Your task to perform on an android device: search for starred emails in the gmail app Image 0: 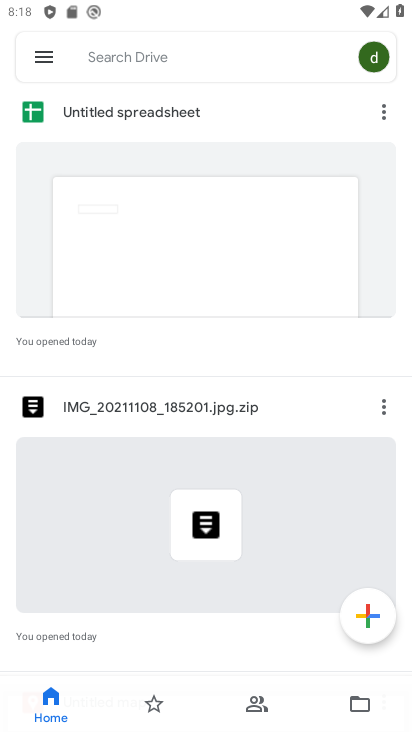
Step 0: press home button
Your task to perform on an android device: search for starred emails in the gmail app Image 1: 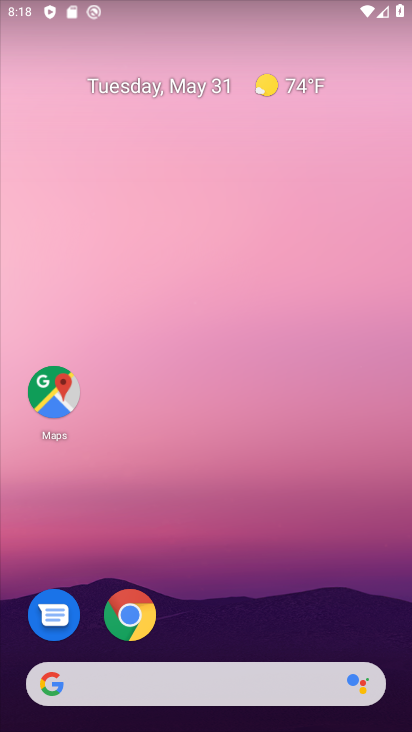
Step 1: drag from (213, 618) to (214, 149)
Your task to perform on an android device: search for starred emails in the gmail app Image 2: 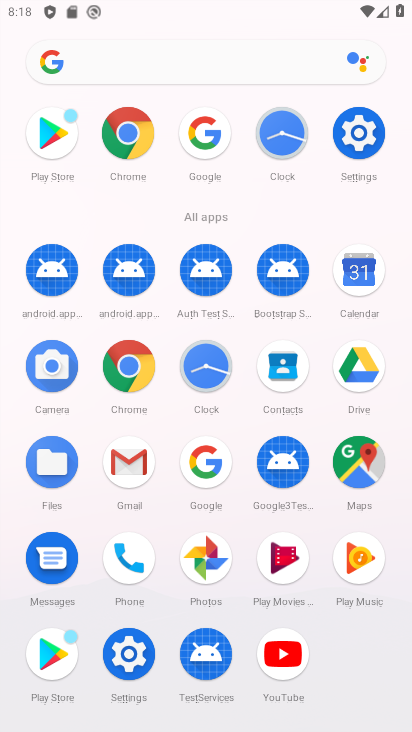
Step 2: click (137, 458)
Your task to perform on an android device: search for starred emails in the gmail app Image 3: 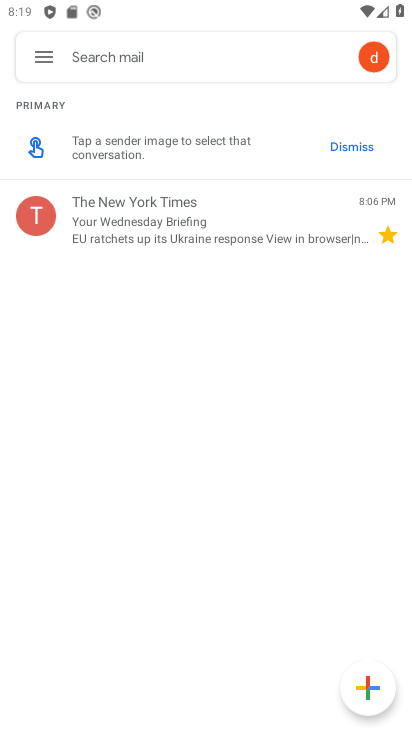
Step 3: click (47, 42)
Your task to perform on an android device: search for starred emails in the gmail app Image 4: 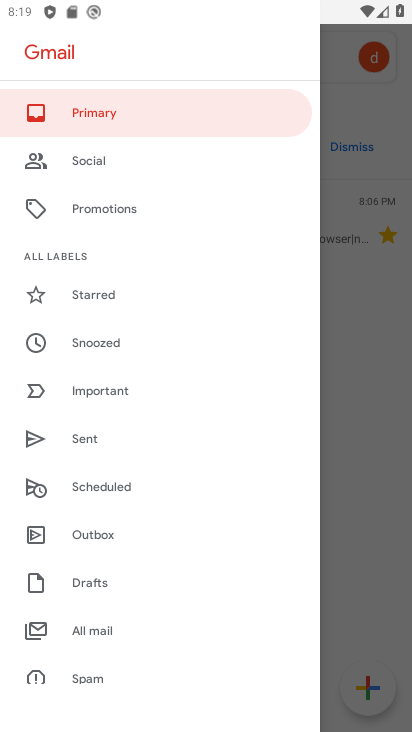
Step 4: click (118, 301)
Your task to perform on an android device: search for starred emails in the gmail app Image 5: 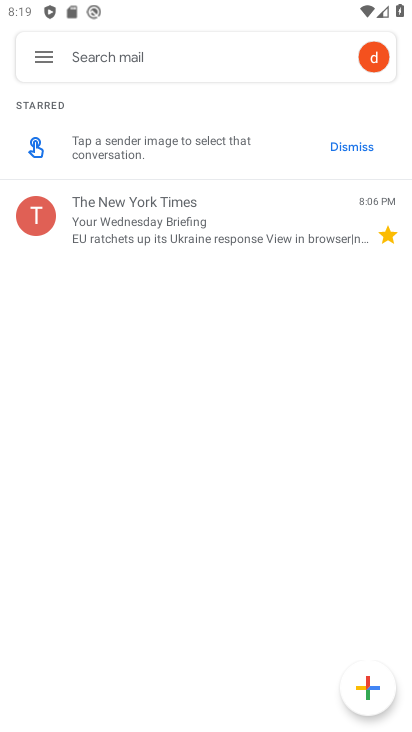
Step 5: task complete